Your task to perform on an android device: turn on javascript in the chrome app Image 0: 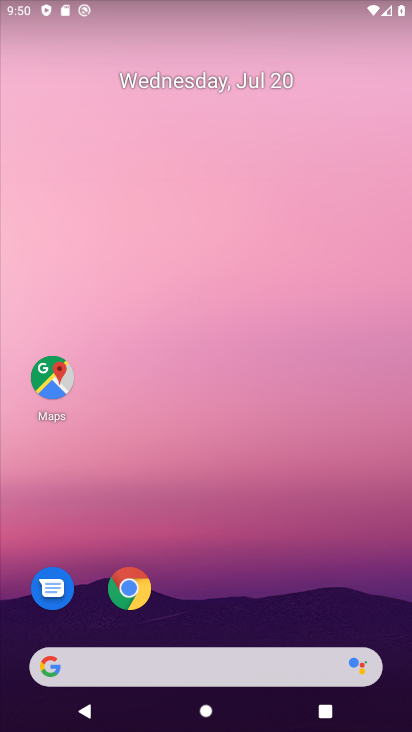
Step 0: click (129, 590)
Your task to perform on an android device: turn on javascript in the chrome app Image 1: 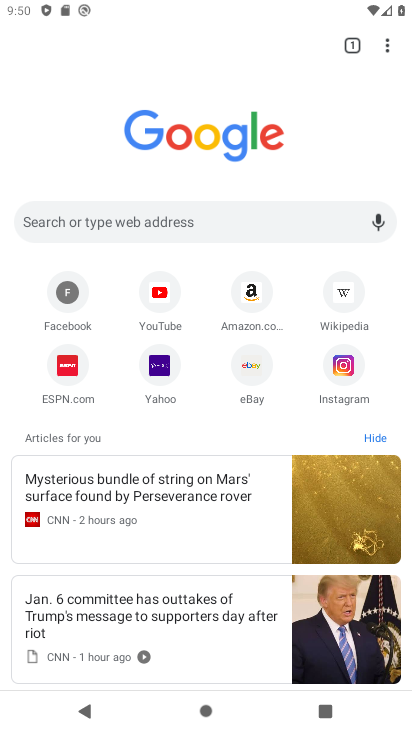
Step 1: click (386, 52)
Your task to perform on an android device: turn on javascript in the chrome app Image 2: 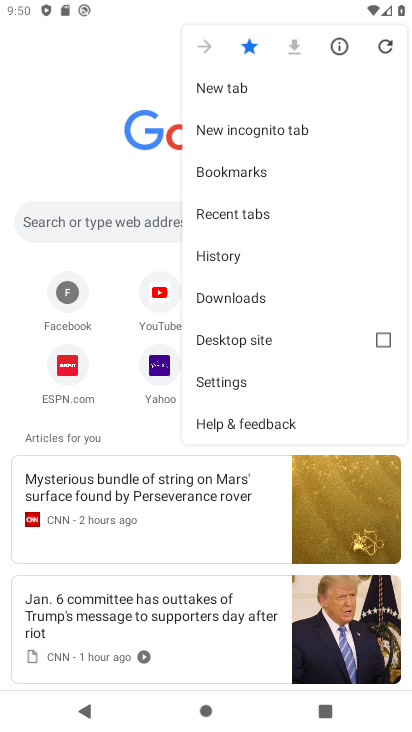
Step 2: click (226, 385)
Your task to perform on an android device: turn on javascript in the chrome app Image 3: 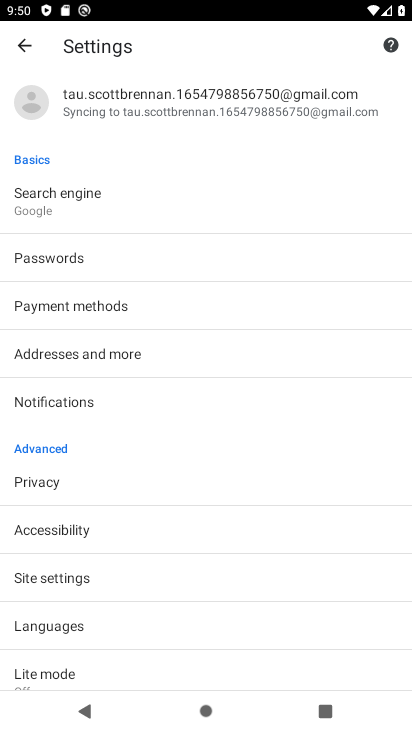
Step 3: click (50, 574)
Your task to perform on an android device: turn on javascript in the chrome app Image 4: 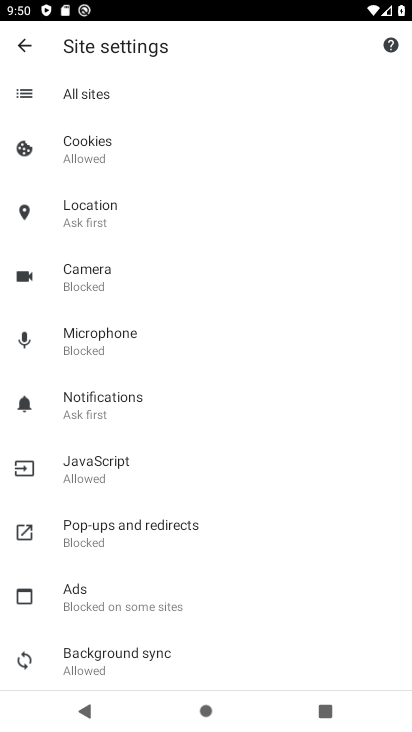
Step 4: click (78, 456)
Your task to perform on an android device: turn on javascript in the chrome app Image 5: 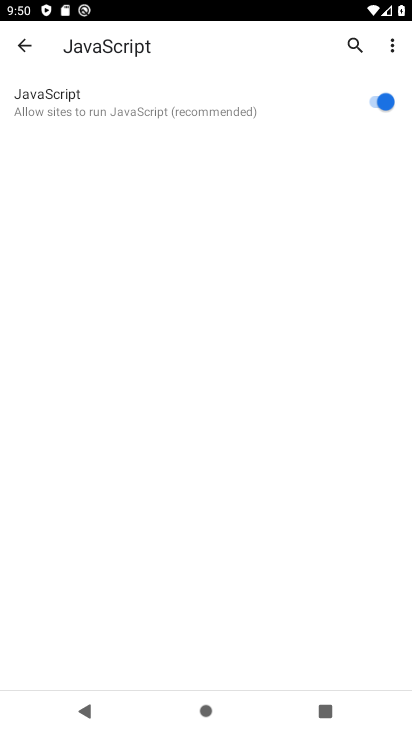
Step 5: task complete